Your task to perform on an android device: check storage Image 0: 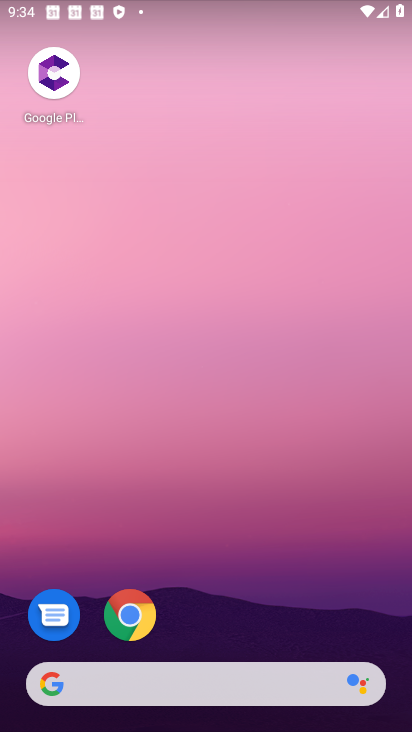
Step 0: drag from (191, 531) to (284, 25)
Your task to perform on an android device: check storage Image 1: 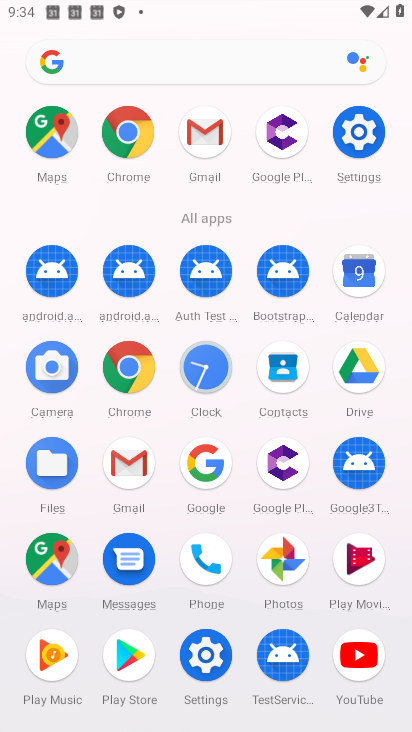
Step 1: click (360, 142)
Your task to perform on an android device: check storage Image 2: 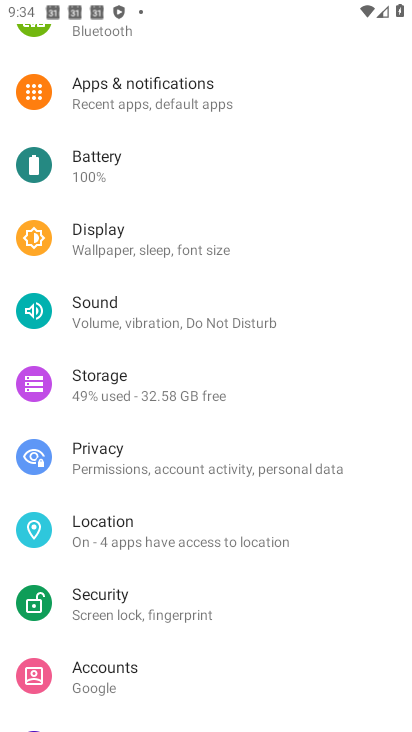
Step 2: drag from (110, 629) to (260, 45)
Your task to perform on an android device: check storage Image 3: 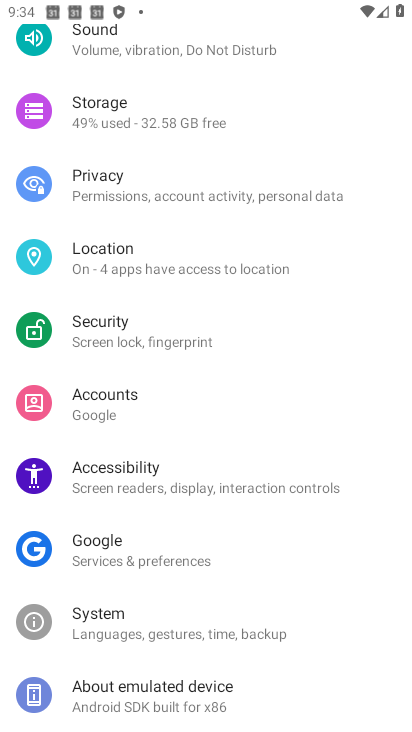
Step 3: click (173, 106)
Your task to perform on an android device: check storage Image 4: 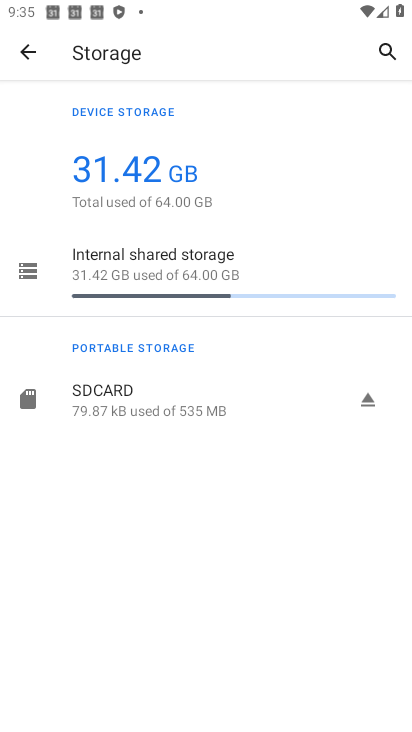
Step 4: task complete